Your task to perform on an android device: Open the calendar app, open the side menu, and click the "Day" option Image 0: 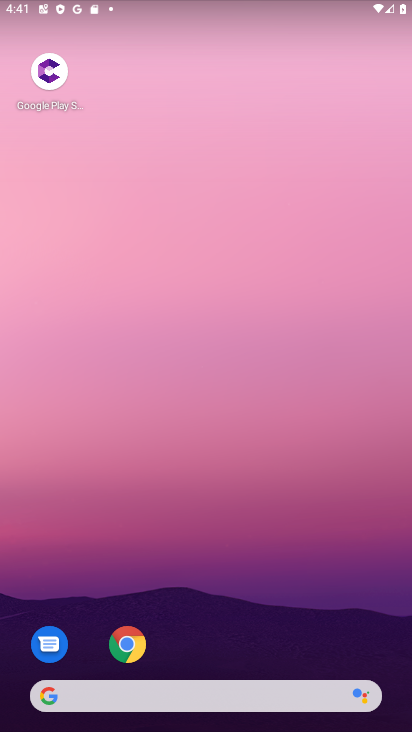
Step 0: drag from (179, 393) to (203, 52)
Your task to perform on an android device: Open the calendar app, open the side menu, and click the "Day" option Image 1: 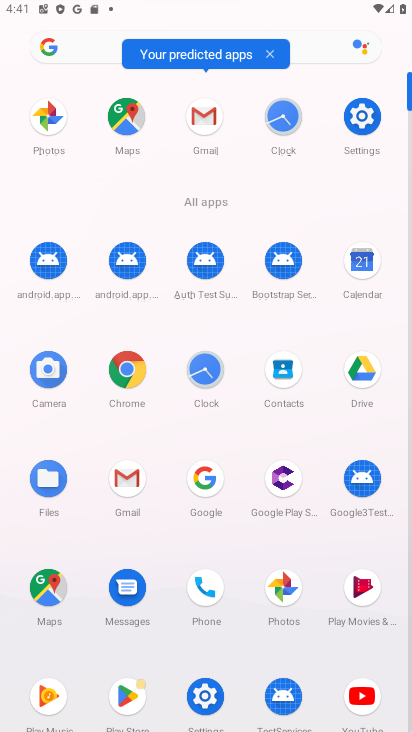
Step 1: click (378, 286)
Your task to perform on an android device: Open the calendar app, open the side menu, and click the "Day" option Image 2: 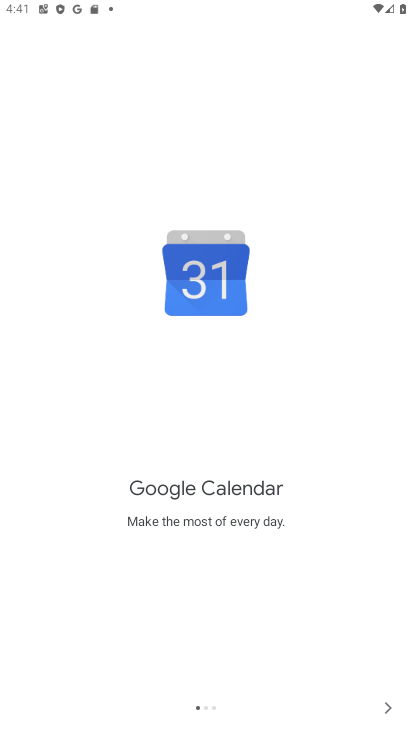
Step 2: click (384, 713)
Your task to perform on an android device: Open the calendar app, open the side menu, and click the "Day" option Image 3: 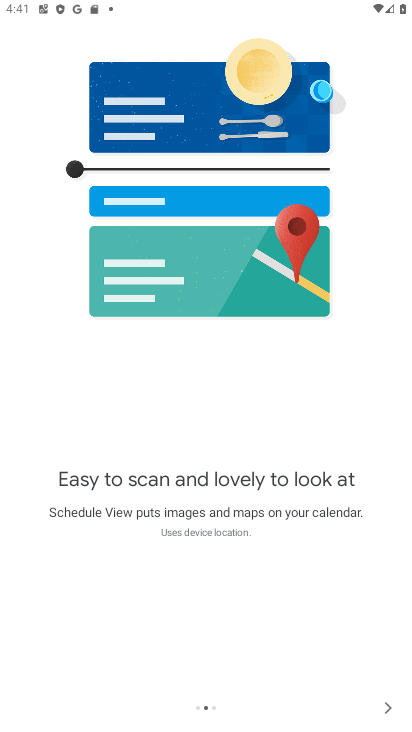
Step 3: click (384, 713)
Your task to perform on an android device: Open the calendar app, open the side menu, and click the "Day" option Image 4: 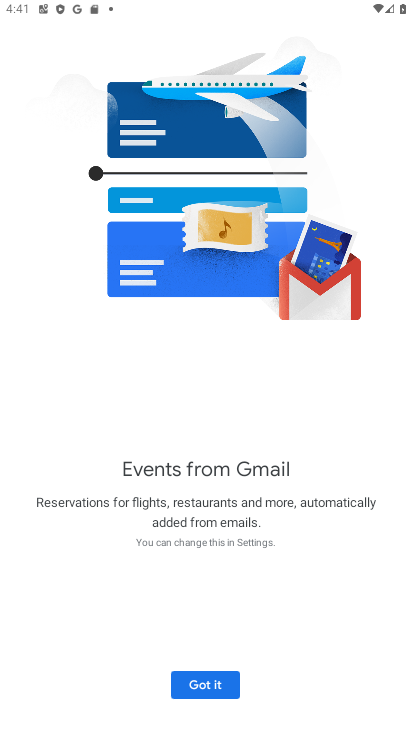
Step 4: click (190, 694)
Your task to perform on an android device: Open the calendar app, open the side menu, and click the "Day" option Image 5: 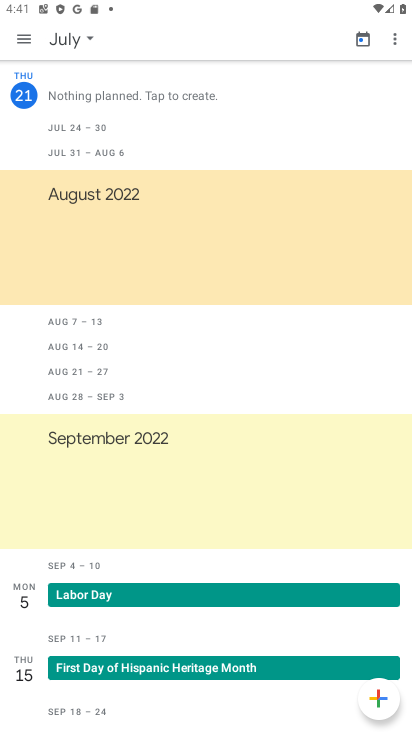
Step 5: click (78, 40)
Your task to perform on an android device: Open the calendar app, open the side menu, and click the "Day" option Image 6: 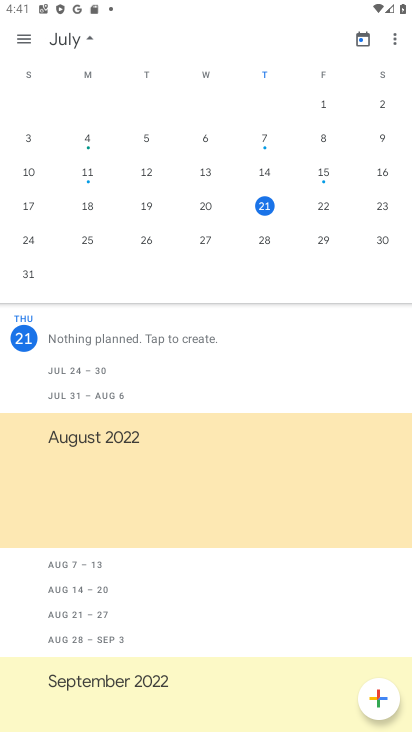
Step 6: click (28, 39)
Your task to perform on an android device: Open the calendar app, open the side menu, and click the "Day" option Image 7: 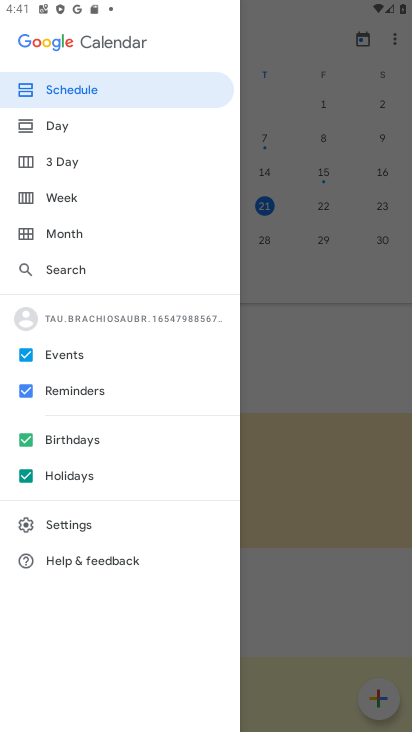
Step 7: click (73, 132)
Your task to perform on an android device: Open the calendar app, open the side menu, and click the "Day" option Image 8: 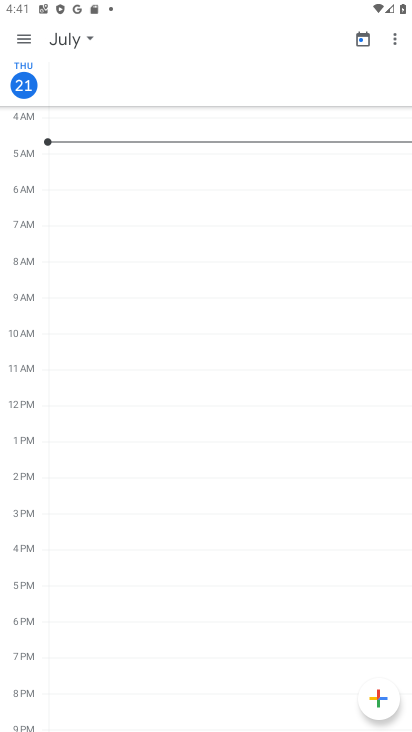
Step 8: task complete